Your task to perform on an android device: Find the nearest electronics store that's open today Image 0: 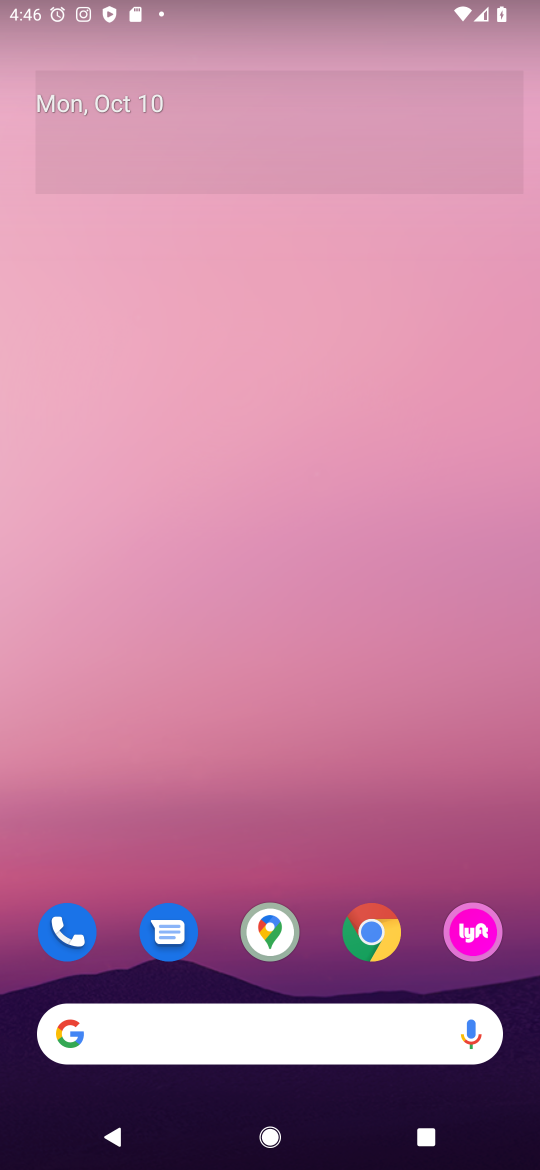
Step 0: press home button
Your task to perform on an android device: Find the nearest electronics store that's open today Image 1: 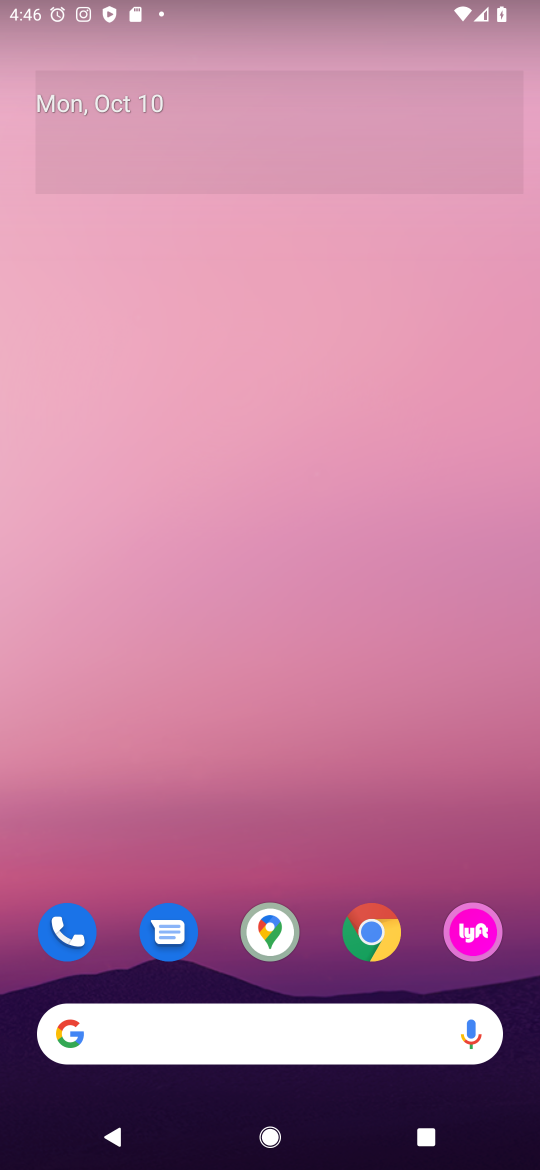
Step 1: click (253, 1038)
Your task to perform on an android device: Find the nearest electronics store that's open today Image 2: 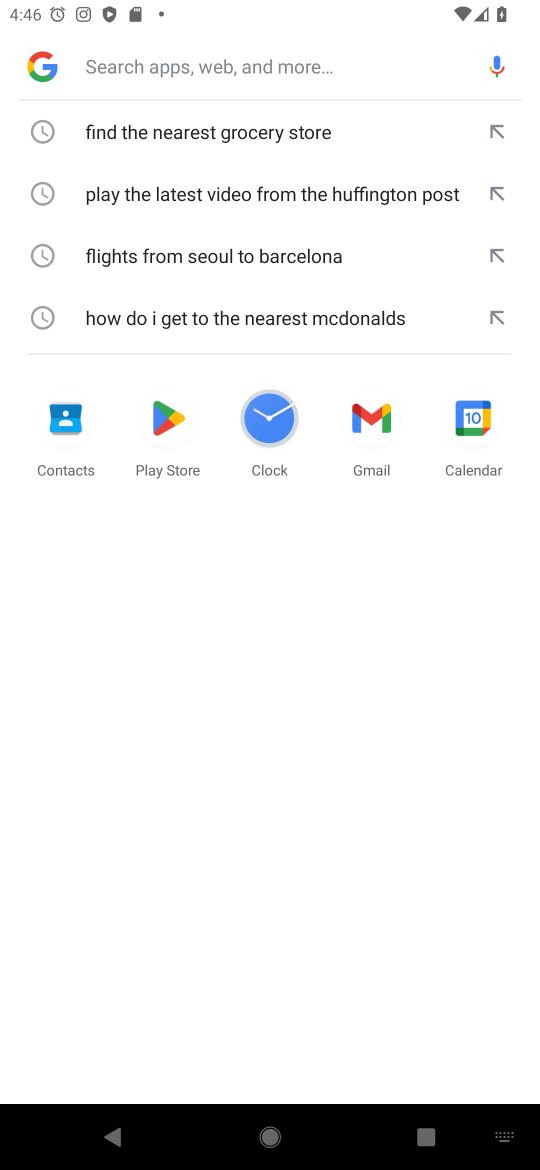
Step 2: type "Find the nearest electronics store that's open today"
Your task to perform on an android device: Find the nearest electronics store that's open today Image 3: 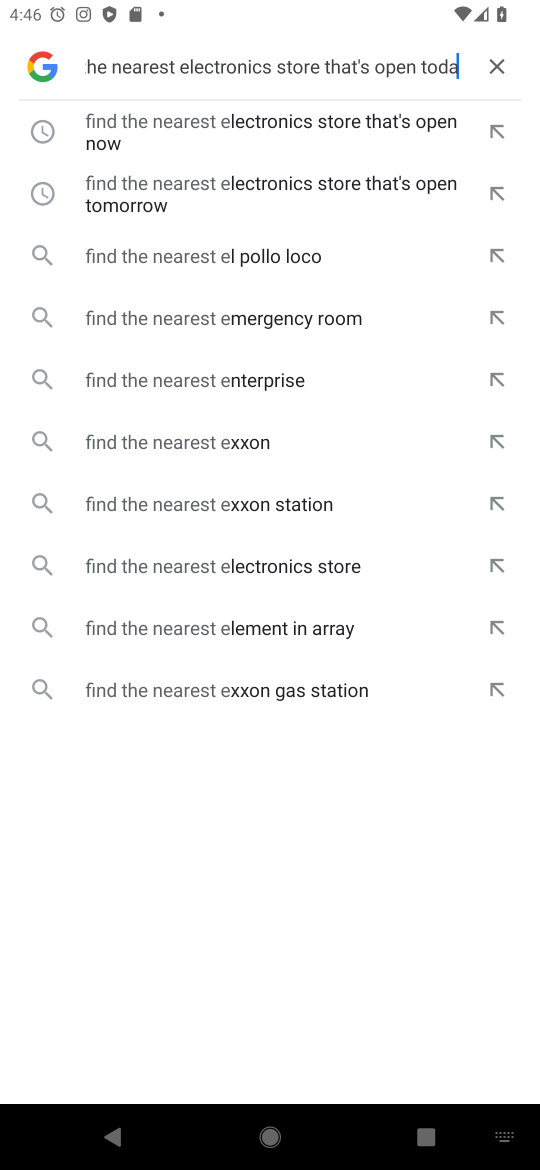
Step 3: press enter
Your task to perform on an android device: Find the nearest electronics store that's open today Image 4: 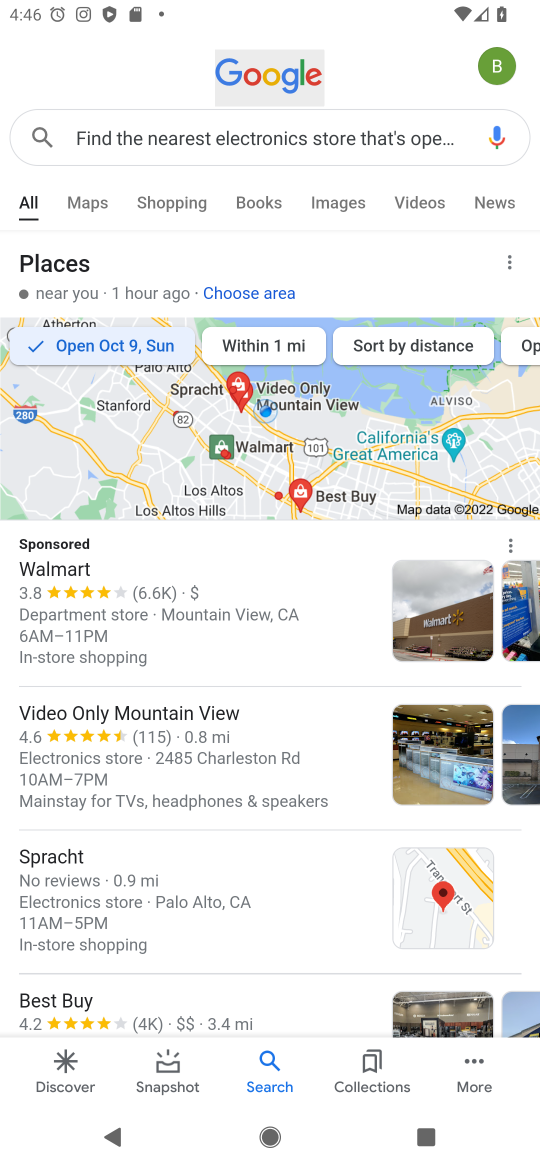
Step 4: task complete